Your task to perform on an android device: set default search engine in the chrome app Image 0: 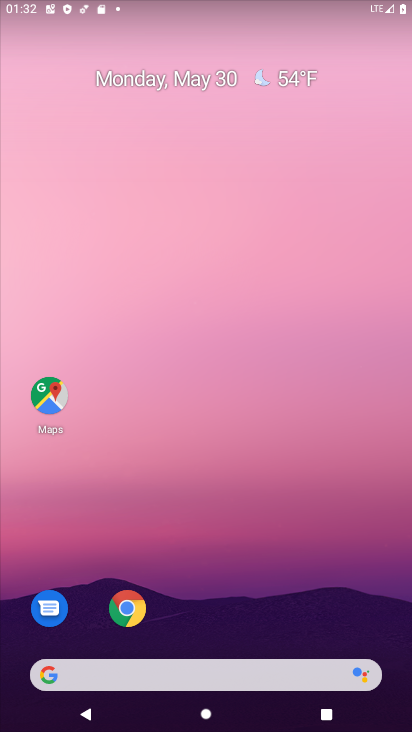
Step 0: drag from (222, 604) to (209, 248)
Your task to perform on an android device: set default search engine in the chrome app Image 1: 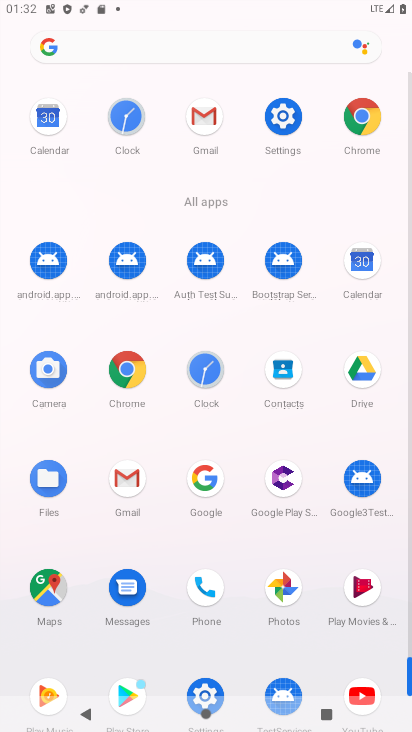
Step 1: click (134, 358)
Your task to perform on an android device: set default search engine in the chrome app Image 2: 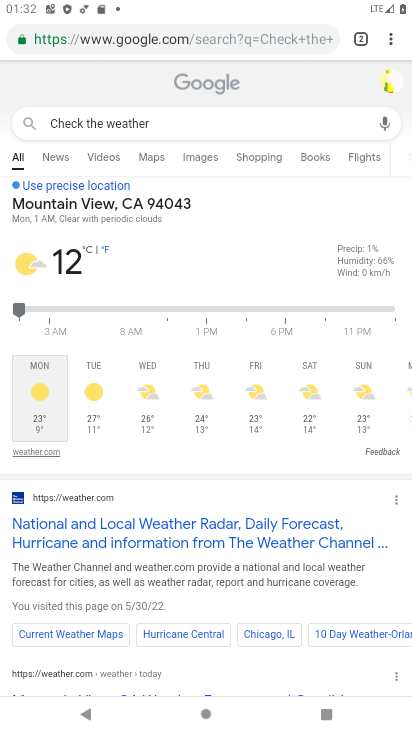
Step 2: click (384, 49)
Your task to perform on an android device: set default search engine in the chrome app Image 3: 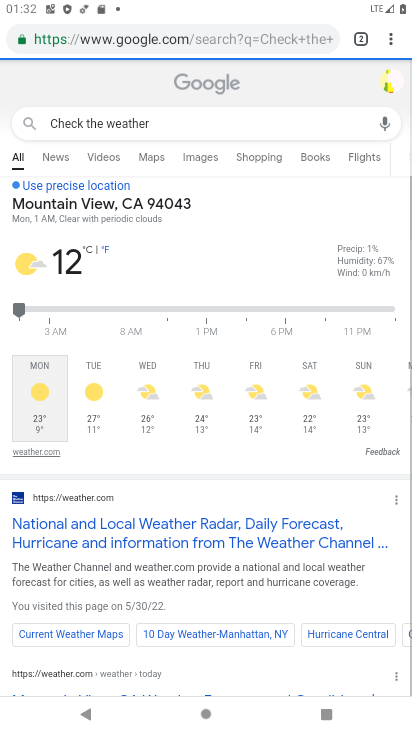
Step 3: click (398, 28)
Your task to perform on an android device: set default search engine in the chrome app Image 4: 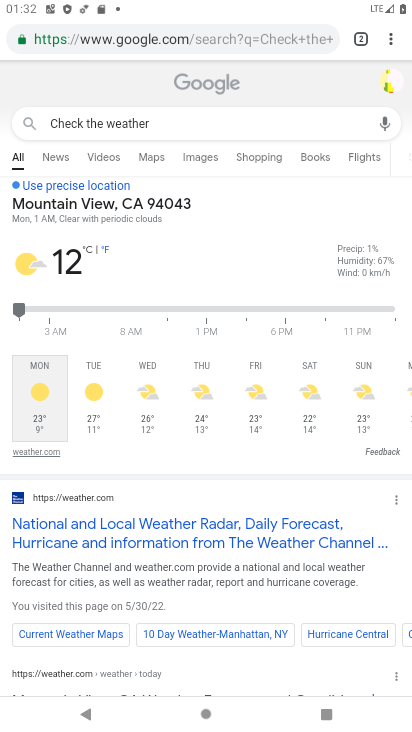
Step 4: click (399, 27)
Your task to perform on an android device: set default search engine in the chrome app Image 5: 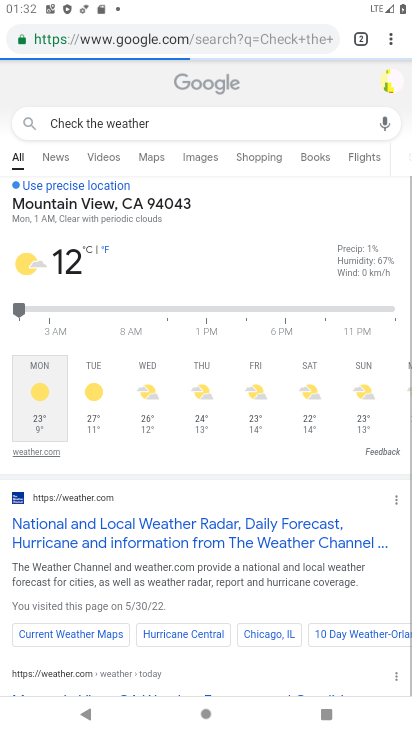
Step 5: click (388, 42)
Your task to perform on an android device: set default search engine in the chrome app Image 6: 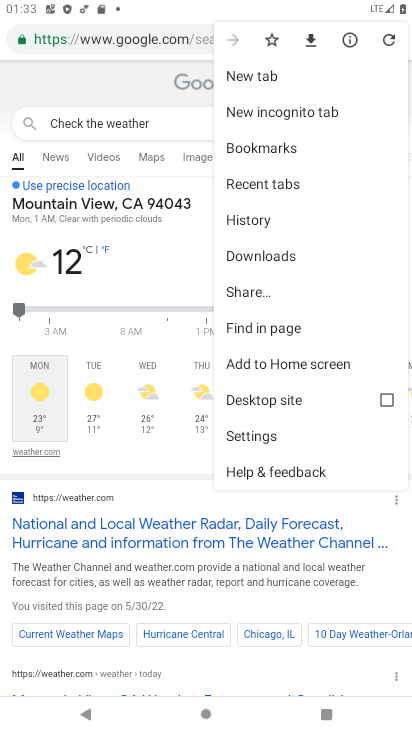
Step 6: click (281, 437)
Your task to perform on an android device: set default search engine in the chrome app Image 7: 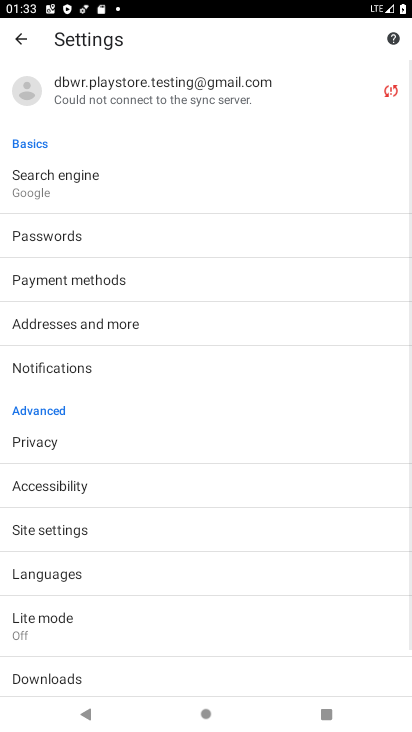
Step 7: click (81, 194)
Your task to perform on an android device: set default search engine in the chrome app Image 8: 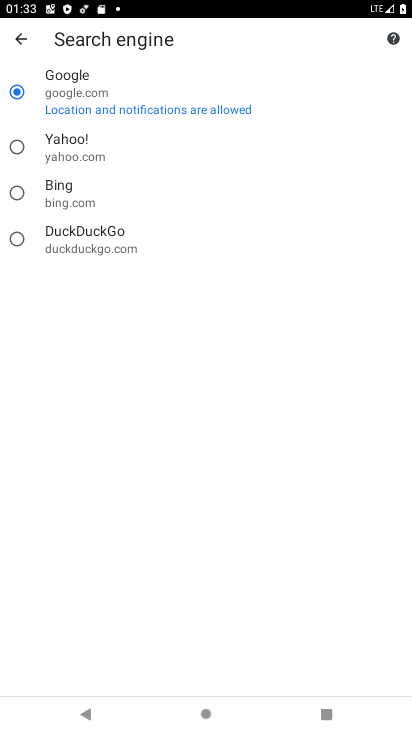
Step 8: click (40, 188)
Your task to perform on an android device: set default search engine in the chrome app Image 9: 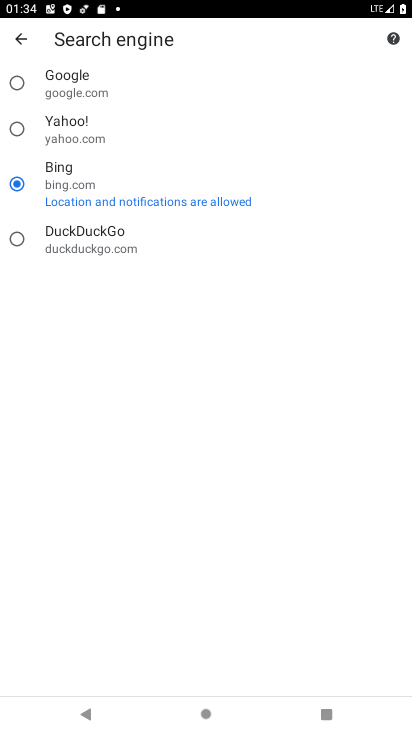
Step 9: task complete